Your task to perform on an android device: open app "Roku - Official Remote Control" (install if not already installed) and enter user name: "autumnal@gmail.com" and password: "stuffing" Image 0: 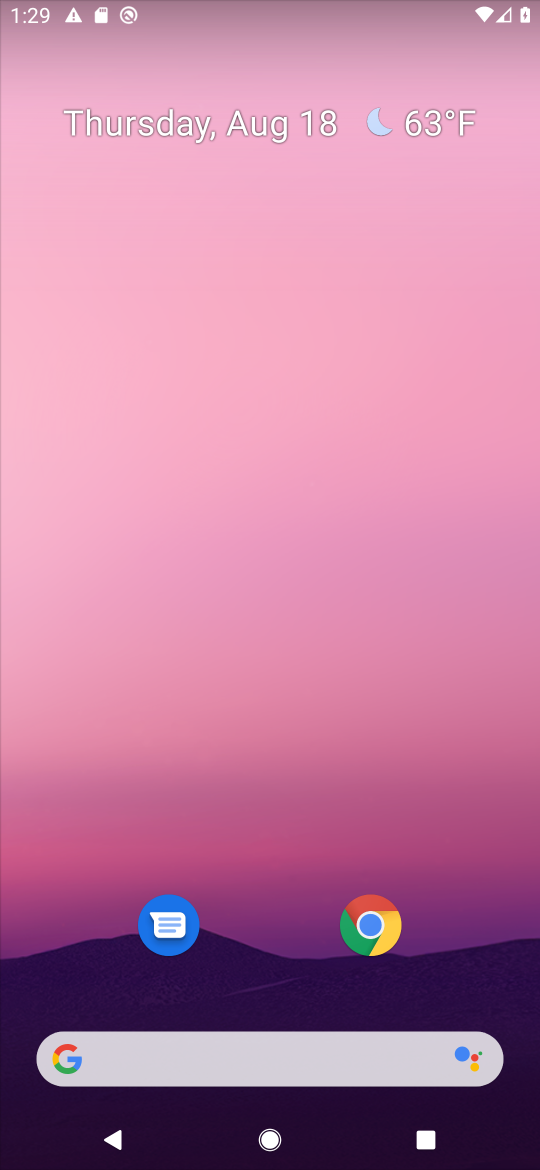
Step 0: drag from (274, 839) to (226, 199)
Your task to perform on an android device: open app "Roku - Official Remote Control" (install if not already installed) and enter user name: "autumnal@gmail.com" and password: "stuffing" Image 1: 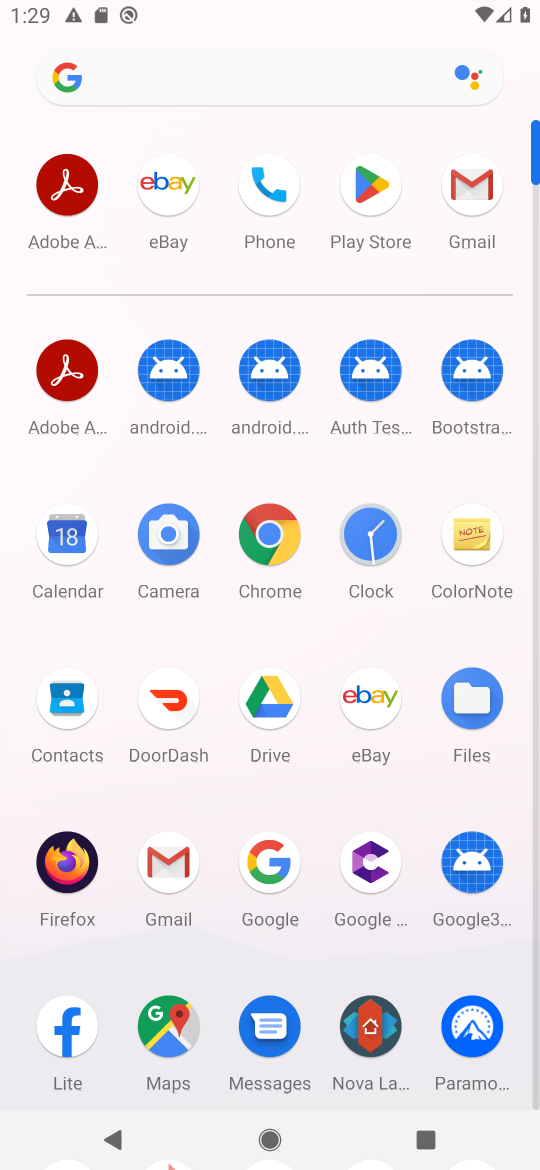
Step 1: click (367, 209)
Your task to perform on an android device: open app "Roku - Official Remote Control" (install if not already installed) and enter user name: "autumnal@gmail.com" and password: "stuffing" Image 2: 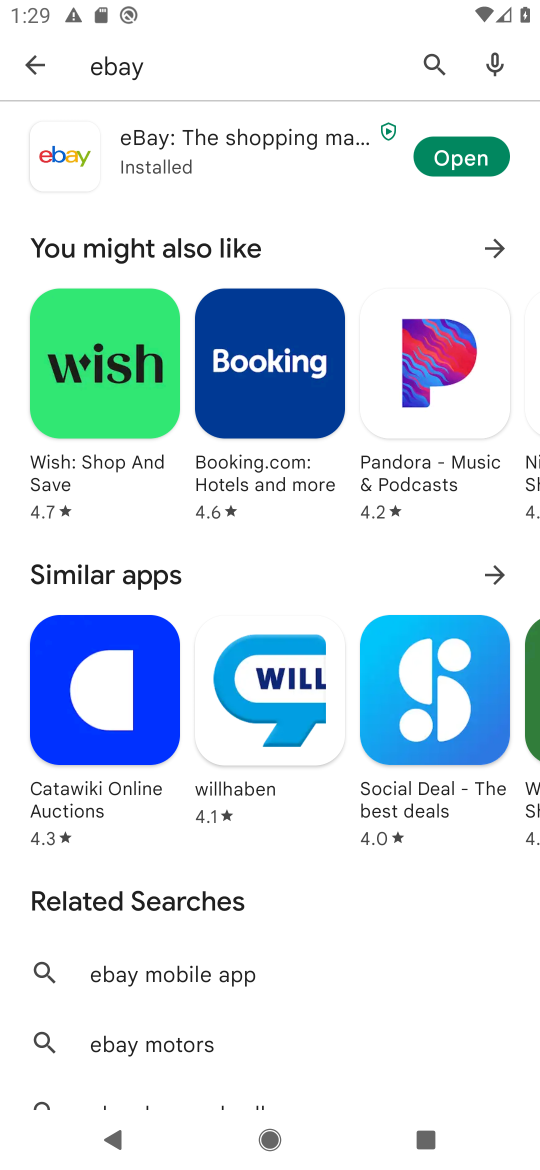
Step 2: click (34, 62)
Your task to perform on an android device: open app "Roku - Official Remote Control" (install if not already installed) and enter user name: "autumnal@gmail.com" and password: "stuffing" Image 3: 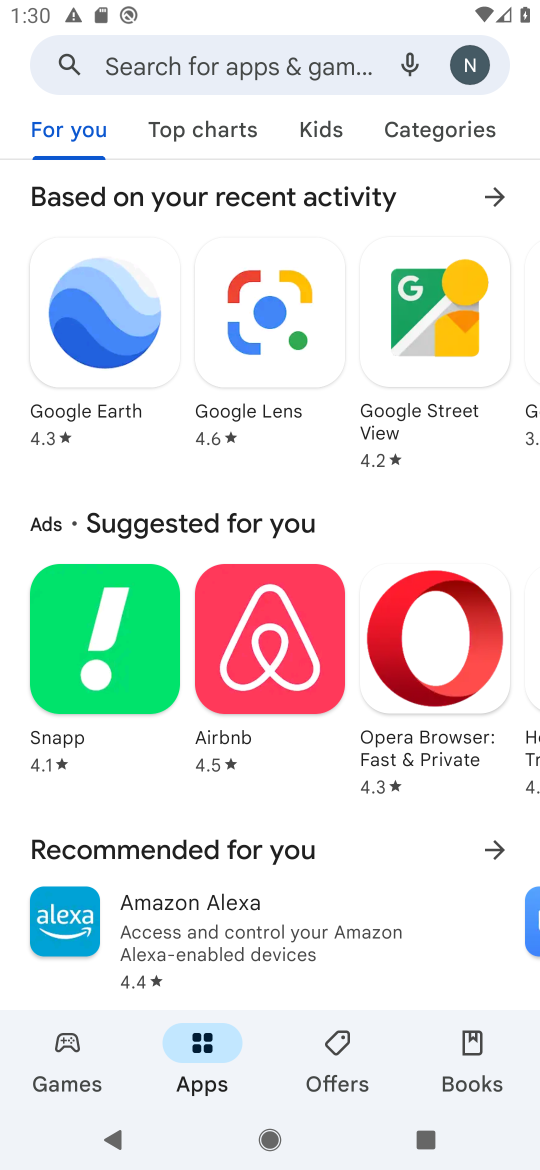
Step 3: click (343, 60)
Your task to perform on an android device: open app "Roku - Official Remote Control" (install if not already installed) and enter user name: "autumnal@gmail.com" and password: "stuffing" Image 4: 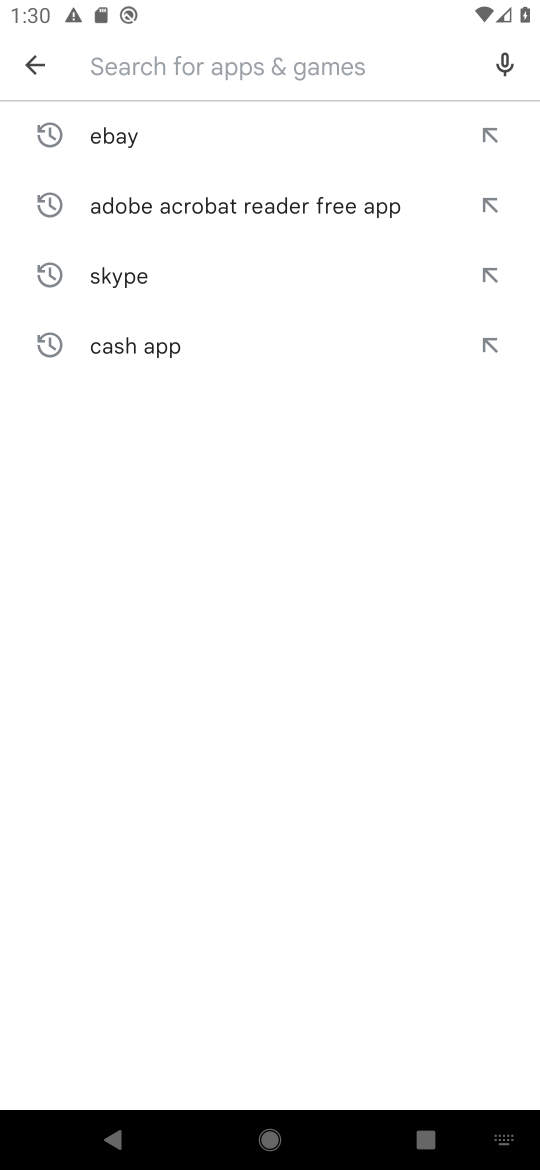
Step 4: type "Roku"
Your task to perform on an android device: open app "Roku - Official Remote Control" (install if not already installed) and enter user name: "autumnal@gmail.com" and password: "stuffing" Image 5: 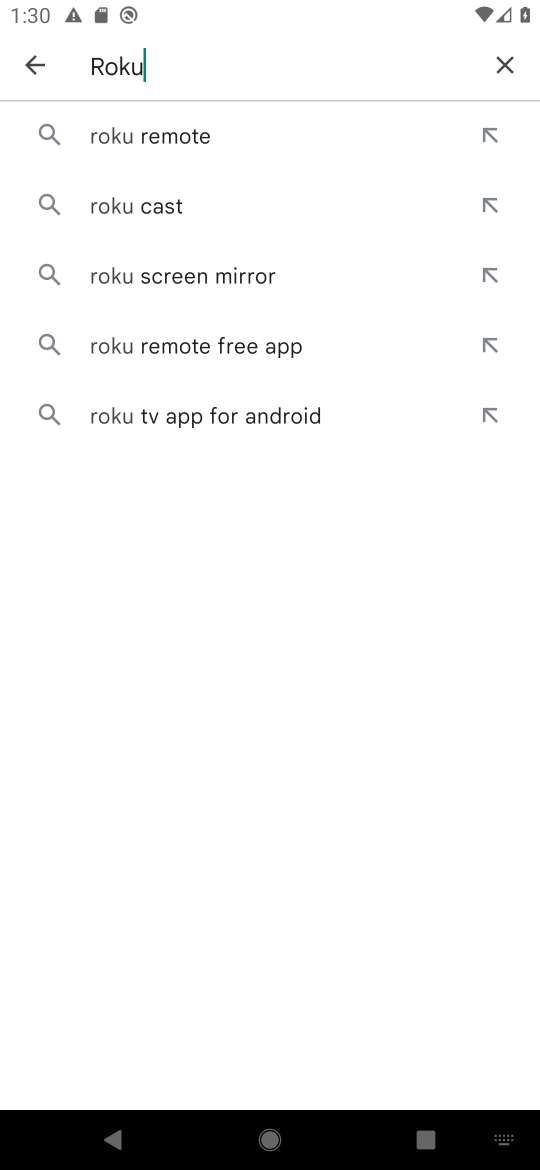
Step 5: click (157, 126)
Your task to perform on an android device: open app "Roku - Official Remote Control" (install if not already installed) and enter user name: "autumnal@gmail.com" and password: "stuffing" Image 6: 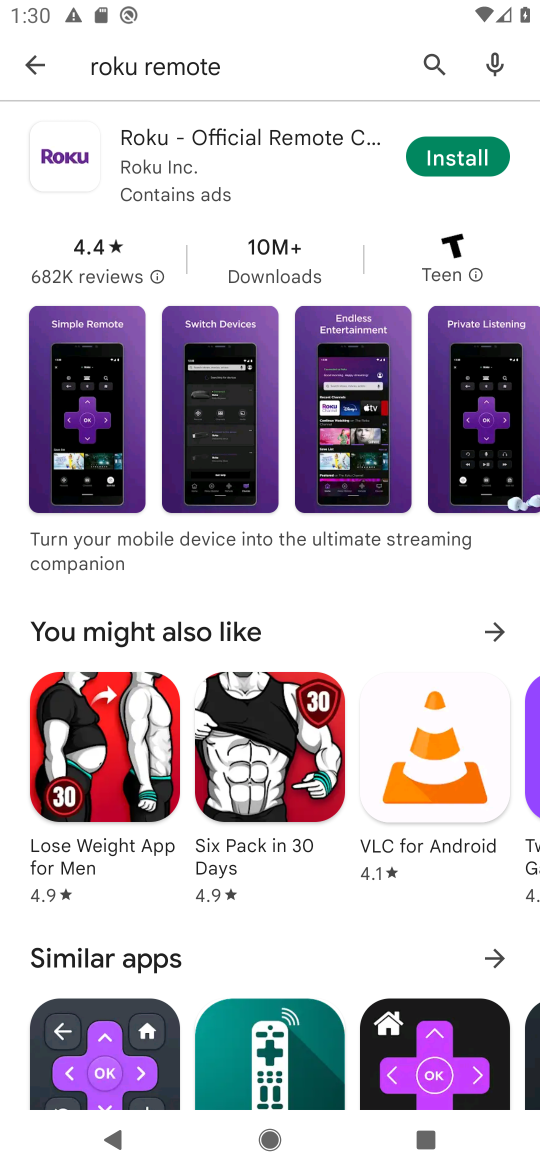
Step 6: click (453, 169)
Your task to perform on an android device: open app "Roku - Official Remote Control" (install if not already installed) and enter user name: "autumnal@gmail.com" and password: "stuffing" Image 7: 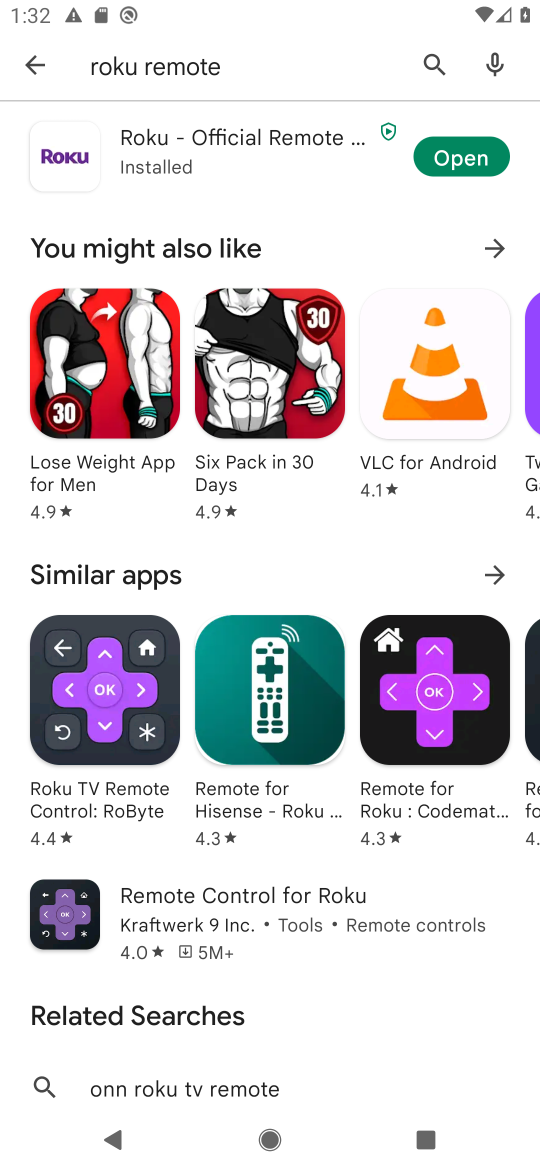
Step 7: click (453, 169)
Your task to perform on an android device: open app "Roku - Official Remote Control" (install if not already installed) and enter user name: "autumnal@gmail.com" and password: "stuffing" Image 8: 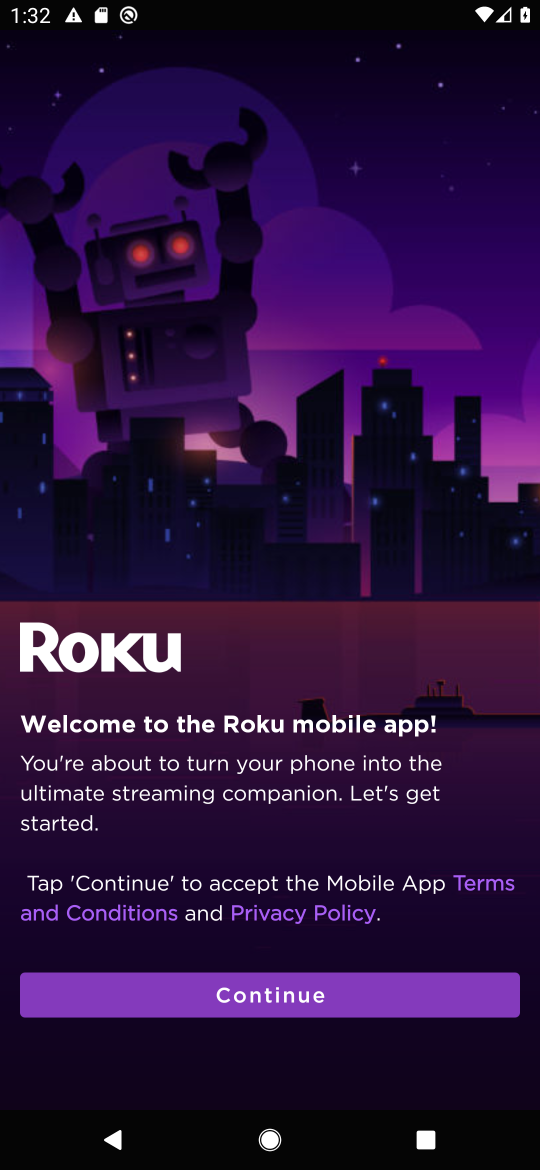
Step 8: task complete